Your task to perform on an android device: Open the stopwatch Image 0: 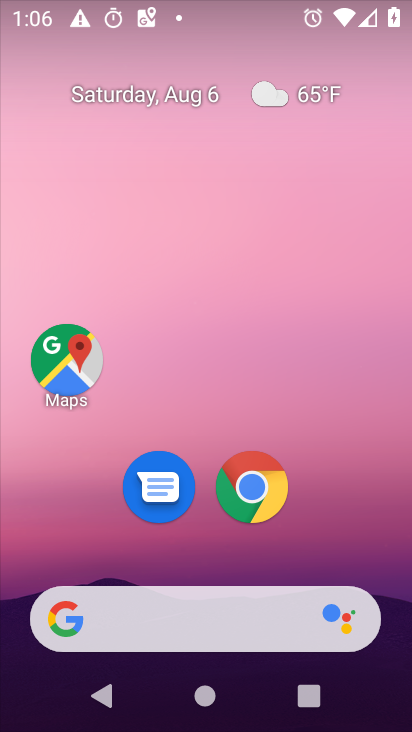
Step 0: drag from (137, 569) to (256, 75)
Your task to perform on an android device: Open the stopwatch Image 1: 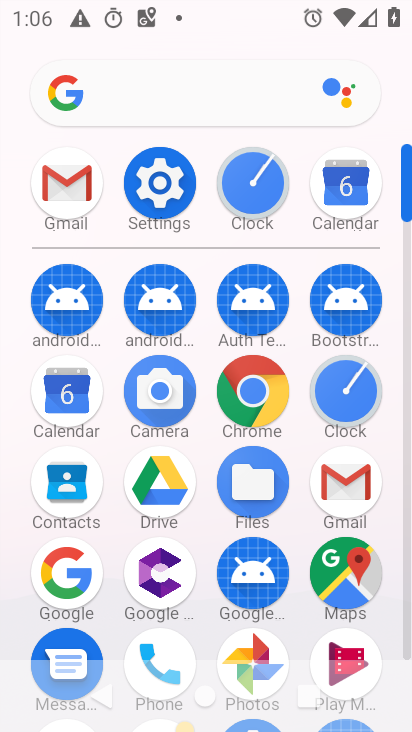
Step 1: click (250, 183)
Your task to perform on an android device: Open the stopwatch Image 2: 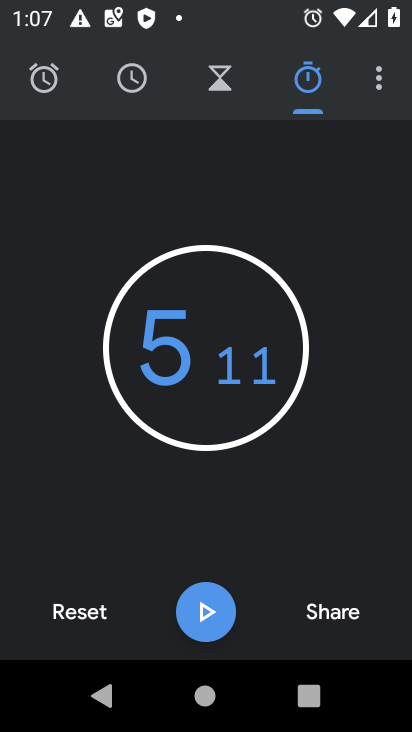
Step 2: task complete